Your task to perform on an android device: Clear the cart on target.com. Image 0: 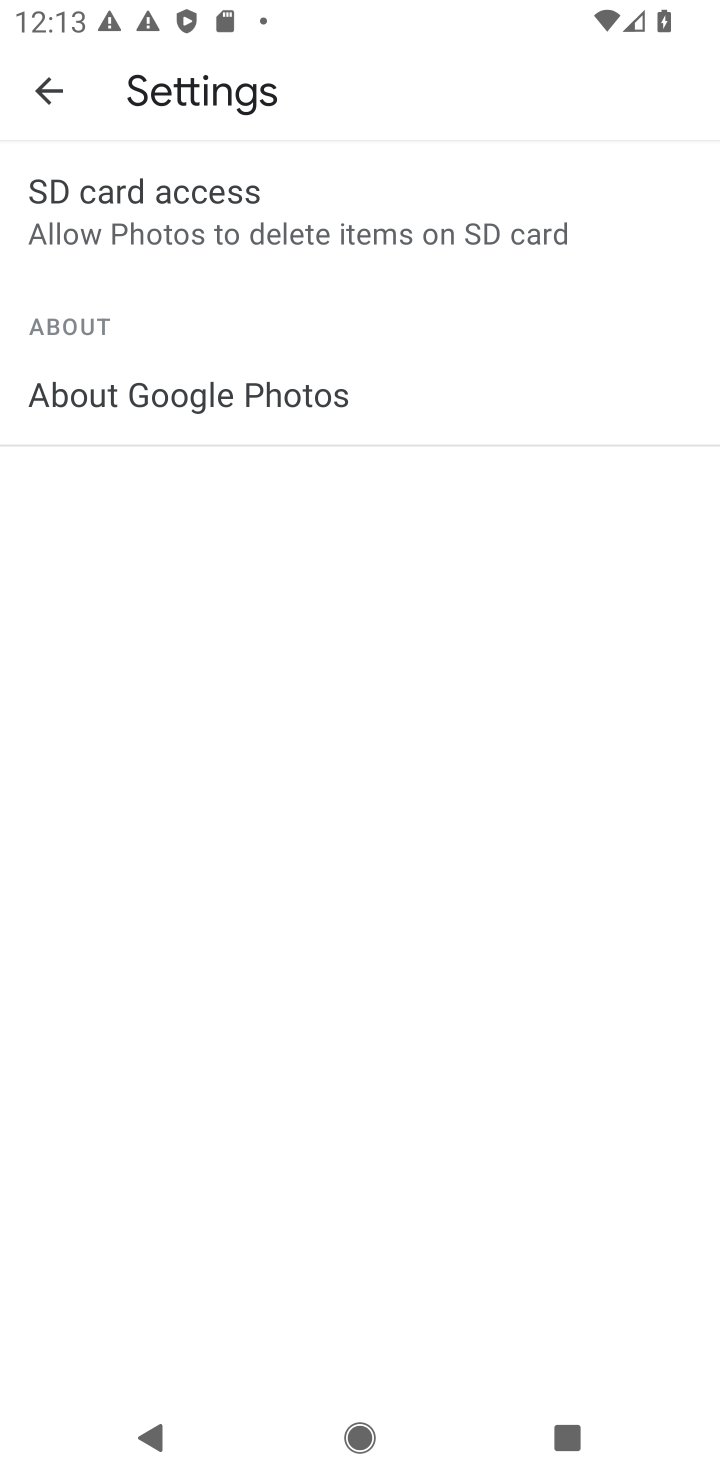
Step 0: press home button
Your task to perform on an android device: Clear the cart on target.com. Image 1: 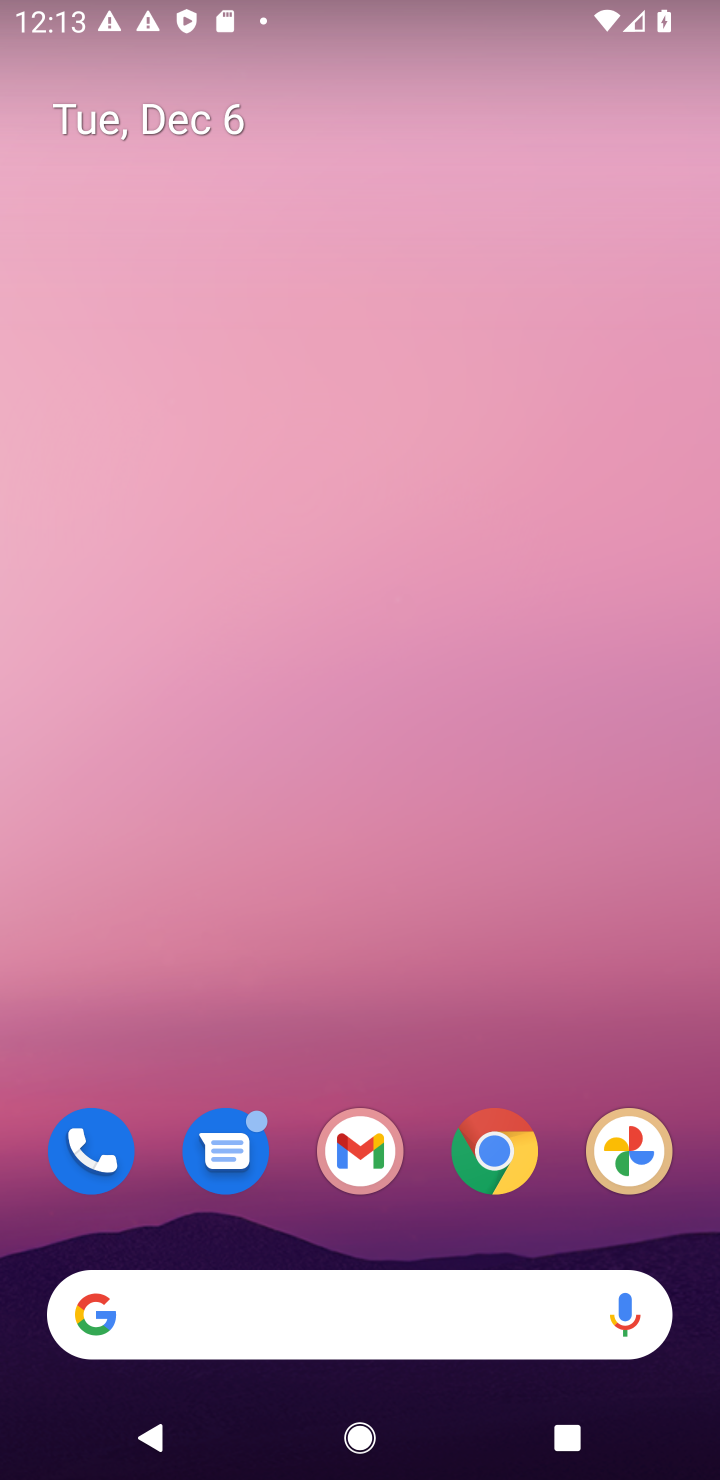
Step 1: click (510, 1162)
Your task to perform on an android device: Clear the cart on target.com. Image 2: 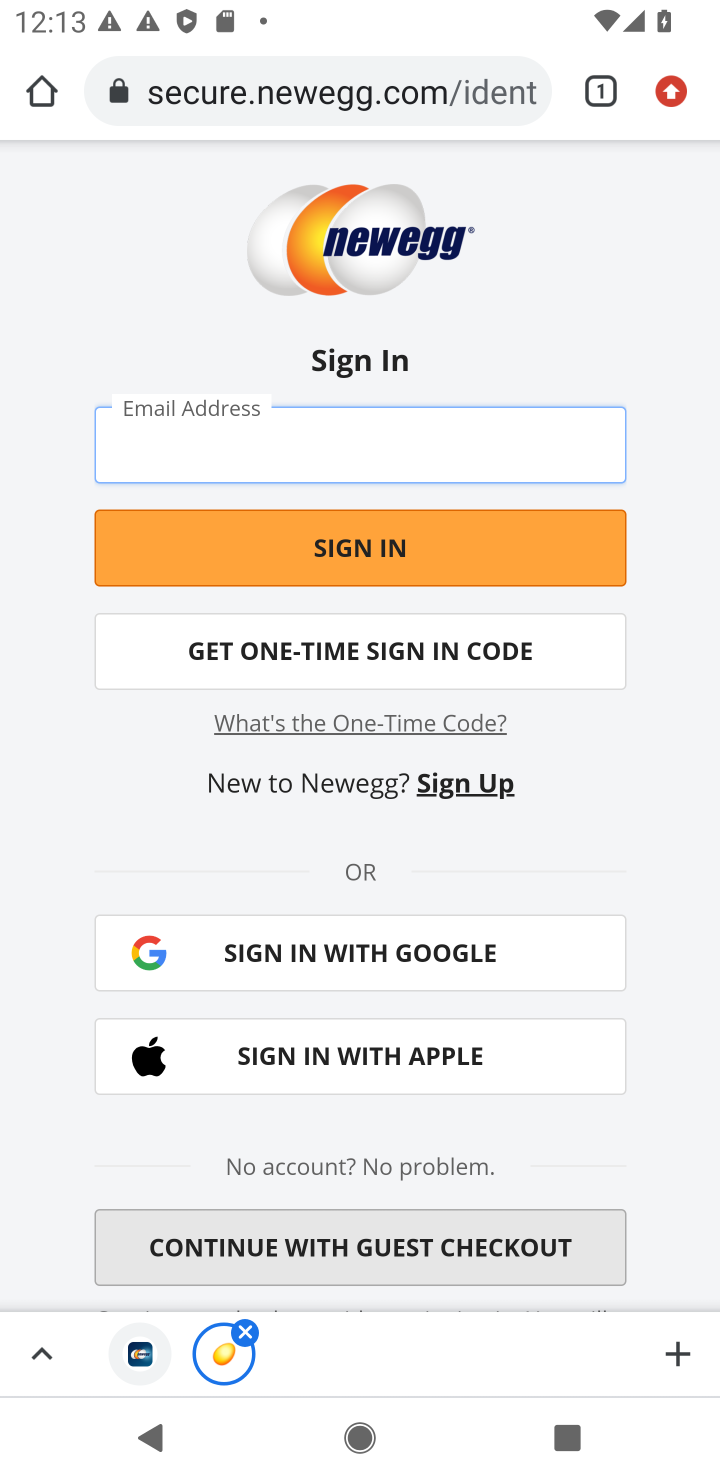
Step 2: click (269, 95)
Your task to perform on an android device: Clear the cart on target.com. Image 3: 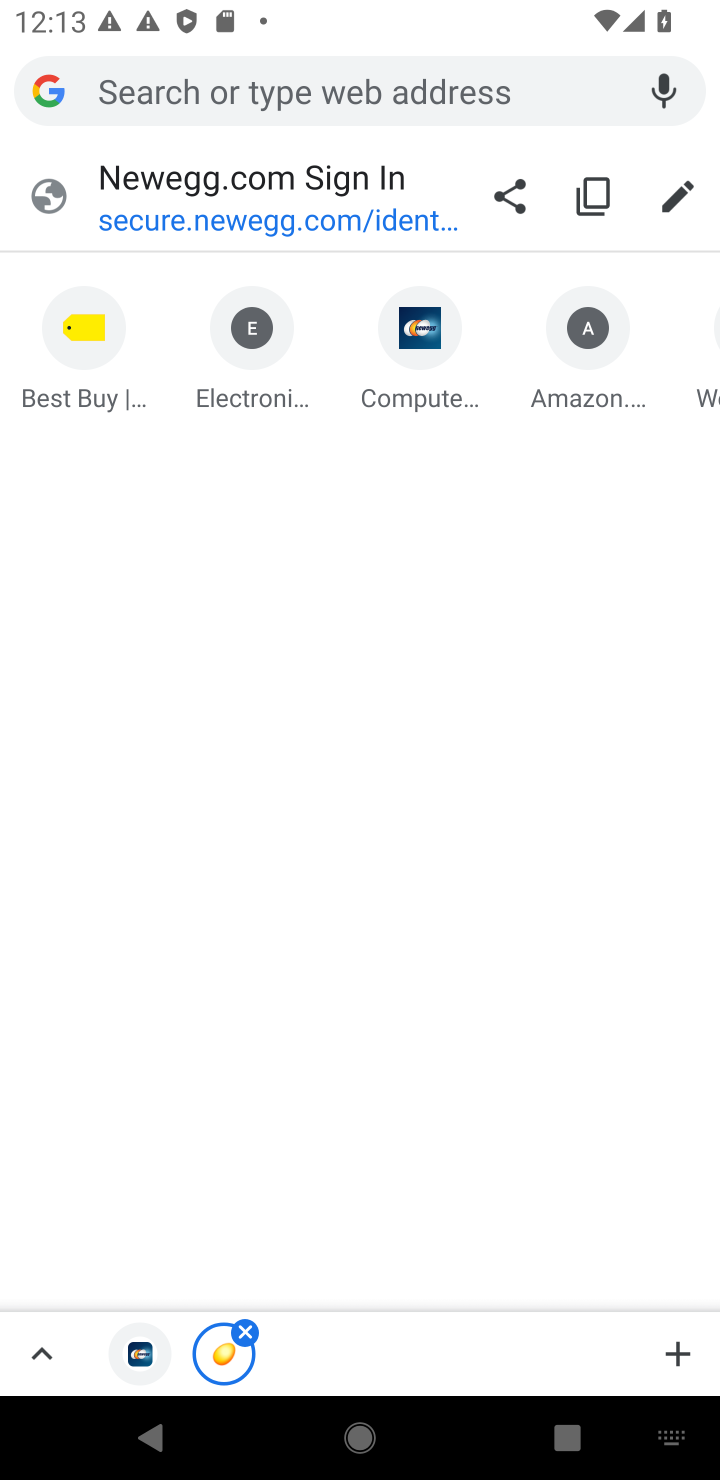
Step 3: type "target.com"
Your task to perform on an android device: Clear the cart on target.com. Image 4: 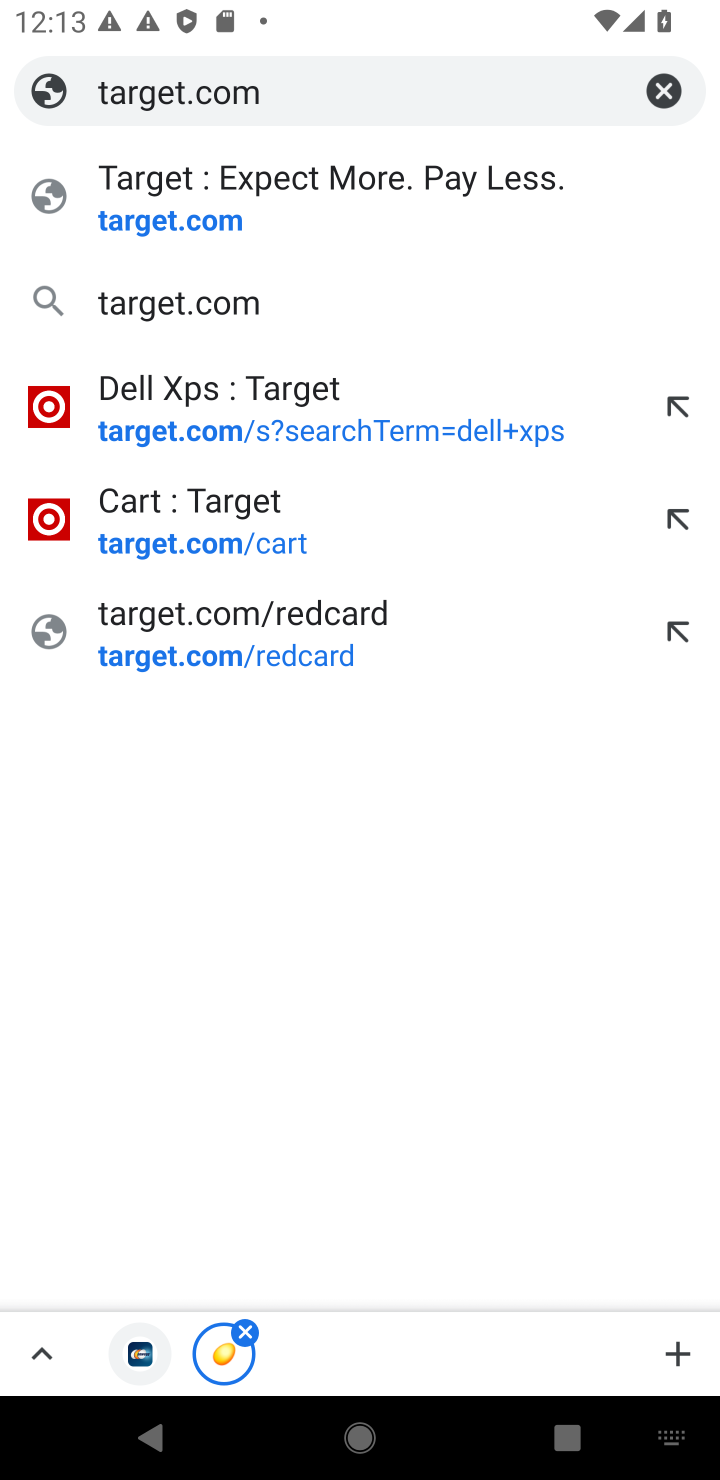
Step 4: click (163, 222)
Your task to perform on an android device: Clear the cart on target.com. Image 5: 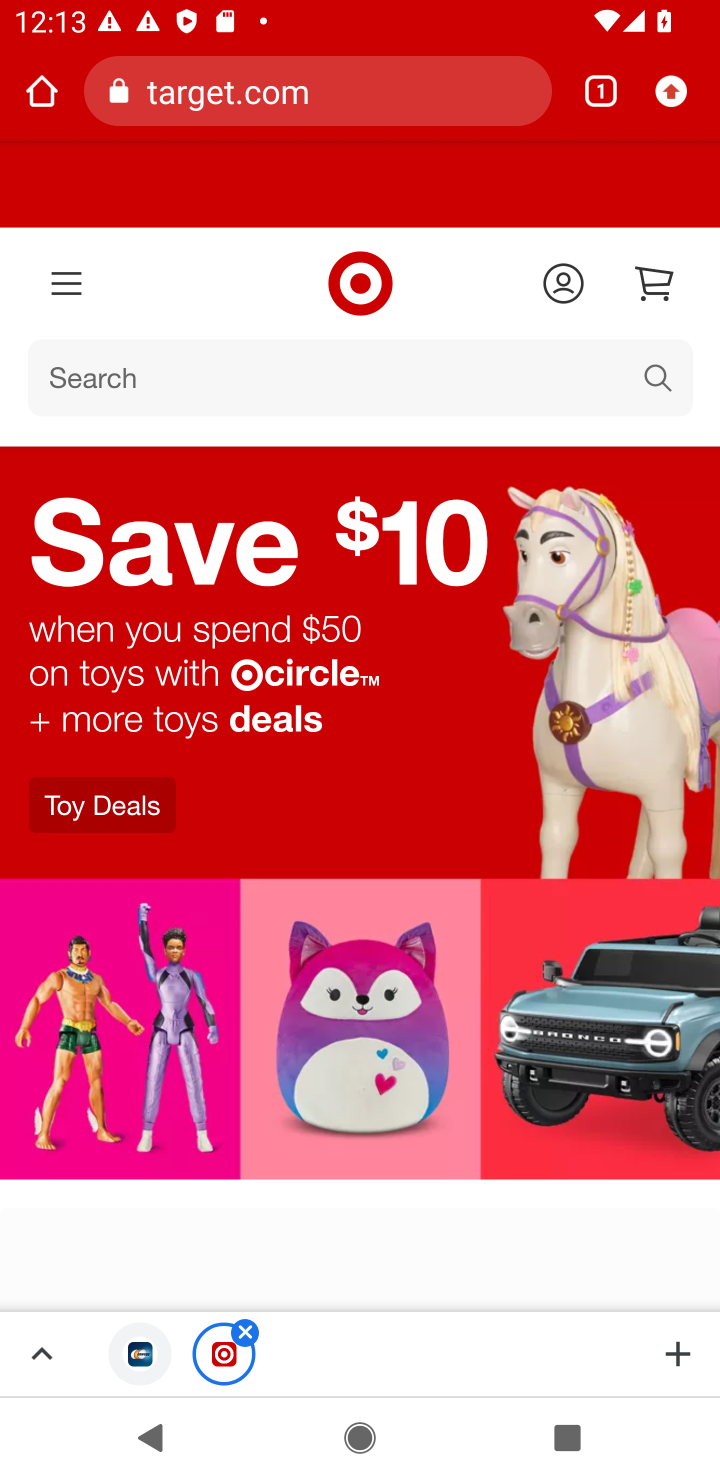
Step 5: click (659, 283)
Your task to perform on an android device: Clear the cart on target.com. Image 6: 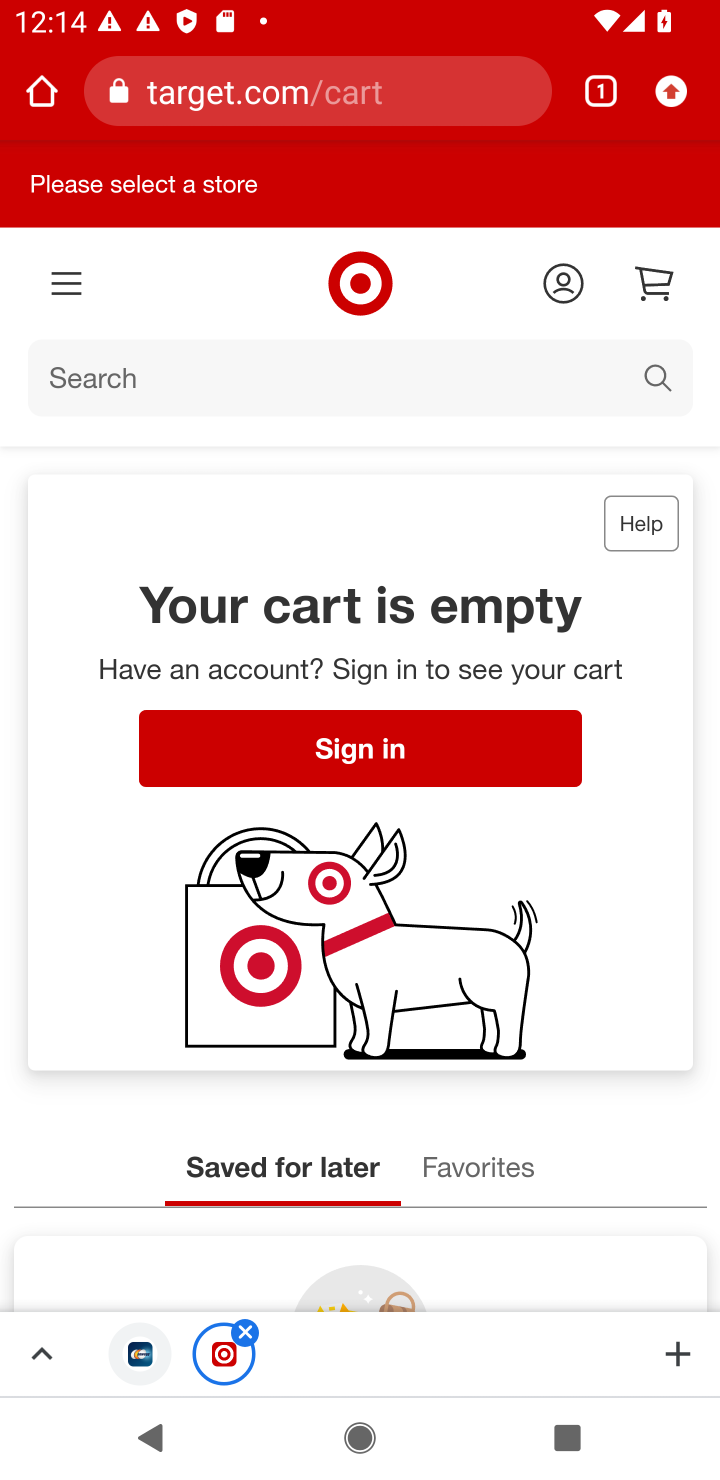
Step 6: task complete